Your task to perform on an android device: change the clock display to show seconds Image 0: 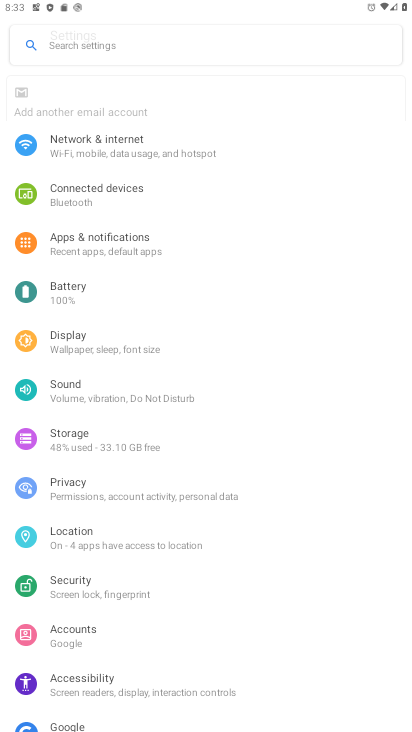
Step 0: drag from (243, 603) to (204, 124)
Your task to perform on an android device: change the clock display to show seconds Image 1: 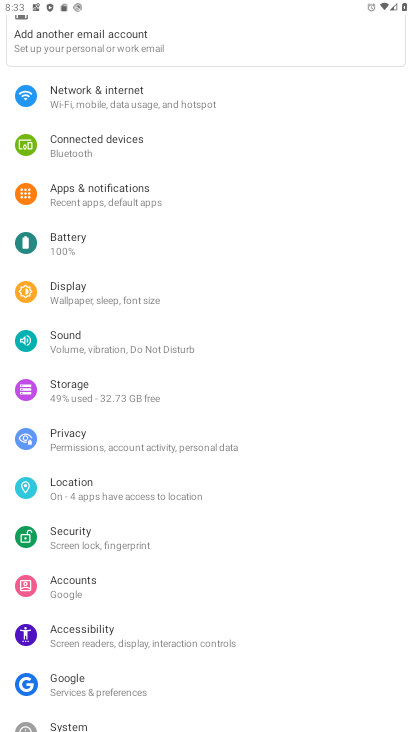
Step 1: press home button
Your task to perform on an android device: change the clock display to show seconds Image 2: 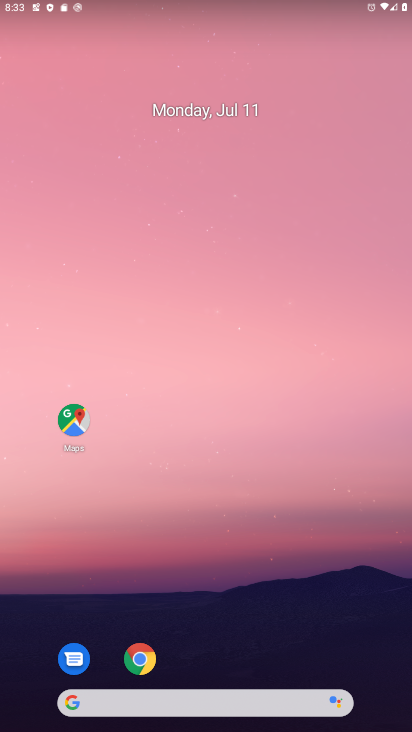
Step 2: drag from (224, 541) to (185, 103)
Your task to perform on an android device: change the clock display to show seconds Image 3: 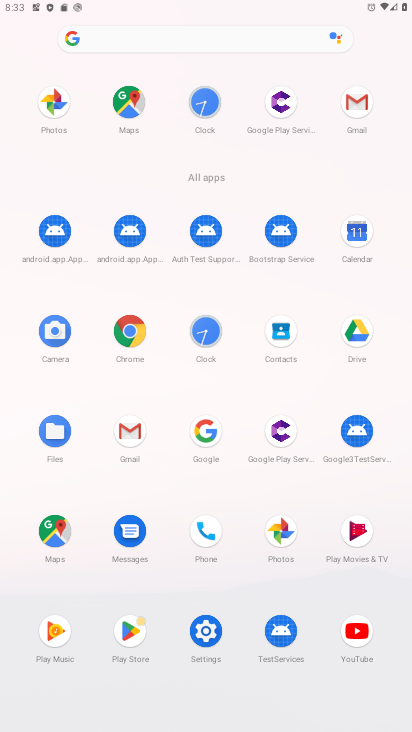
Step 3: click (205, 104)
Your task to perform on an android device: change the clock display to show seconds Image 4: 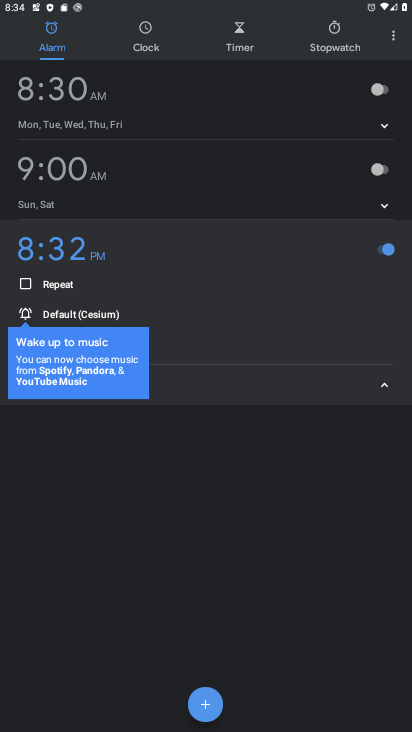
Step 4: click (397, 36)
Your task to perform on an android device: change the clock display to show seconds Image 5: 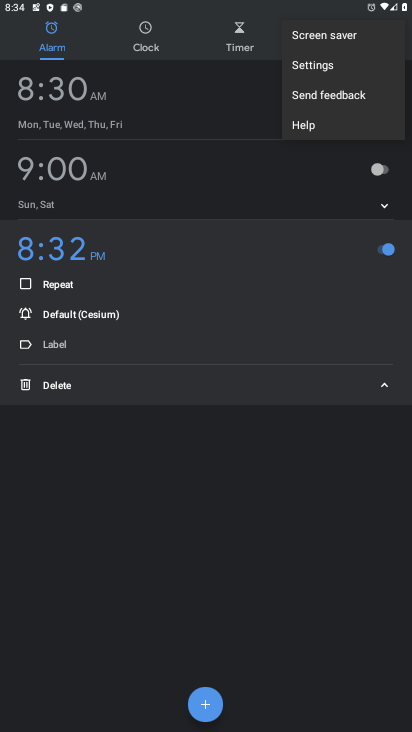
Step 5: click (316, 72)
Your task to perform on an android device: change the clock display to show seconds Image 6: 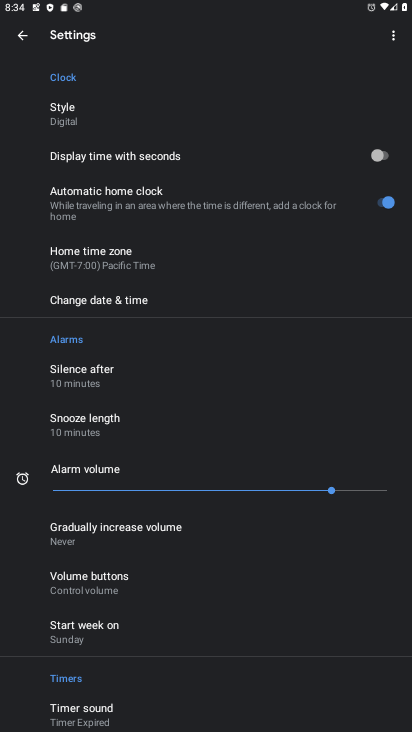
Step 6: click (380, 158)
Your task to perform on an android device: change the clock display to show seconds Image 7: 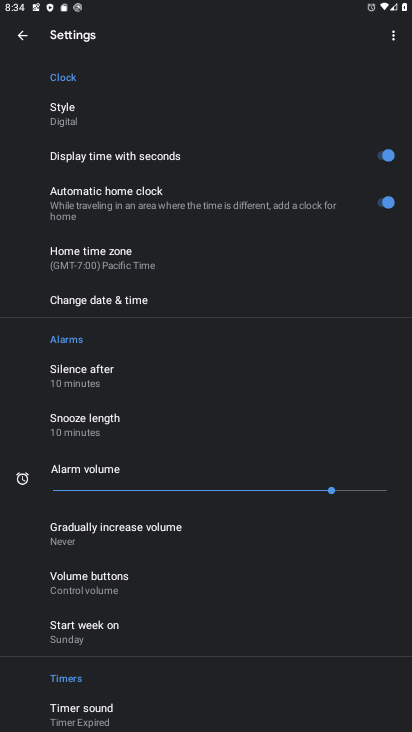
Step 7: task complete